Your task to perform on an android device: see tabs open on other devices in the chrome app Image 0: 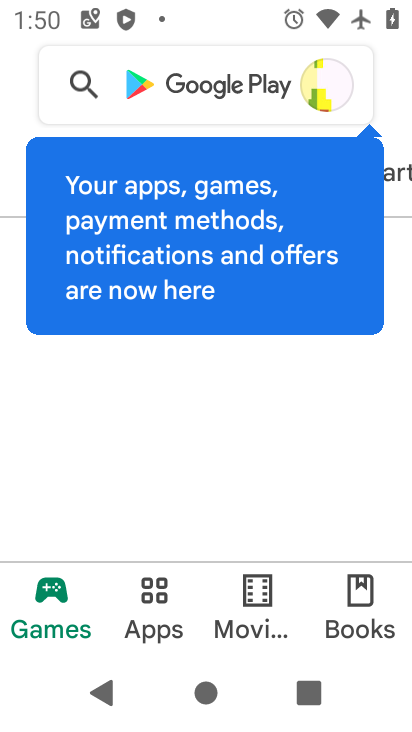
Step 0: press home button
Your task to perform on an android device: see tabs open on other devices in the chrome app Image 1: 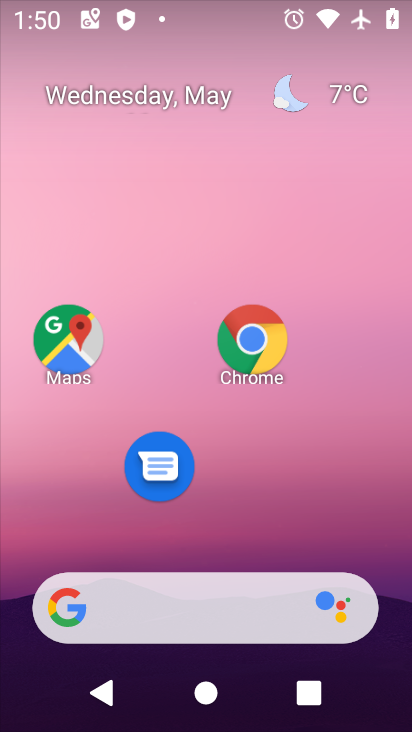
Step 1: drag from (191, 628) to (235, 136)
Your task to perform on an android device: see tabs open on other devices in the chrome app Image 2: 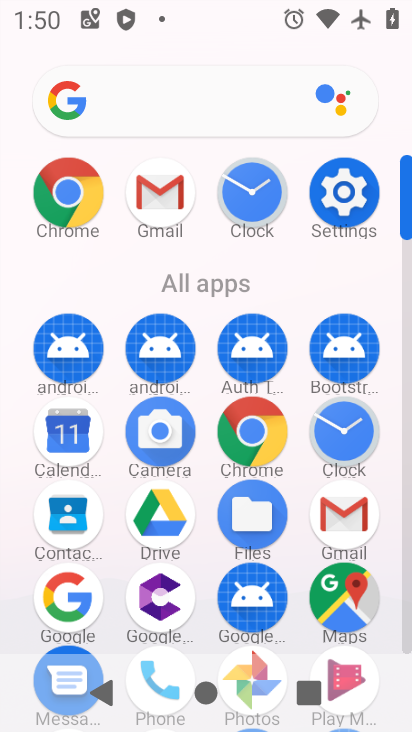
Step 2: click (83, 201)
Your task to perform on an android device: see tabs open on other devices in the chrome app Image 3: 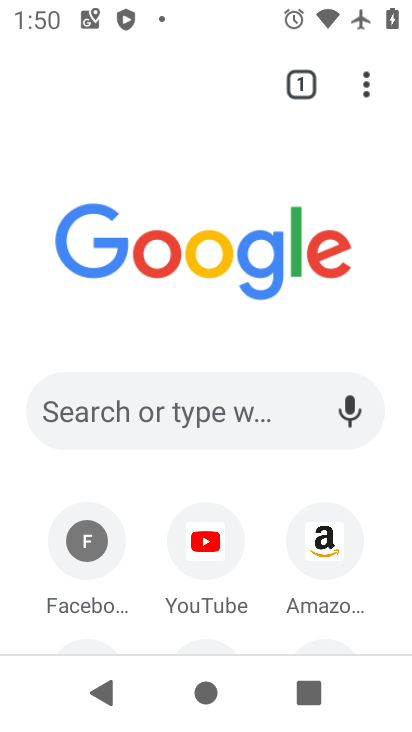
Step 3: task complete